Your task to perform on an android device: Do I have any events tomorrow? Image 0: 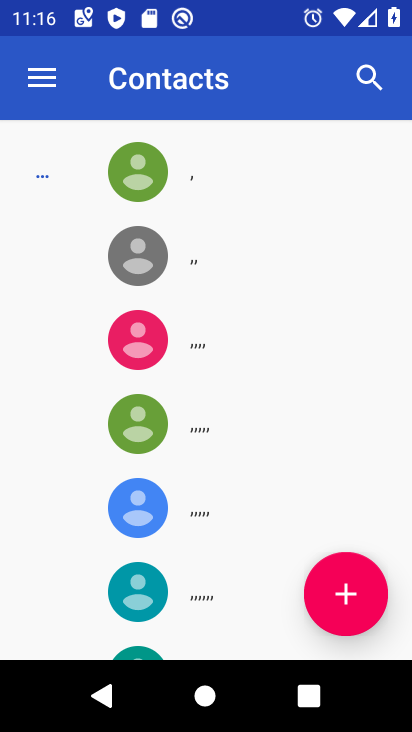
Step 0: press home button
Your task to perform on an android device: Do I have any events tomorrow? Image 1: 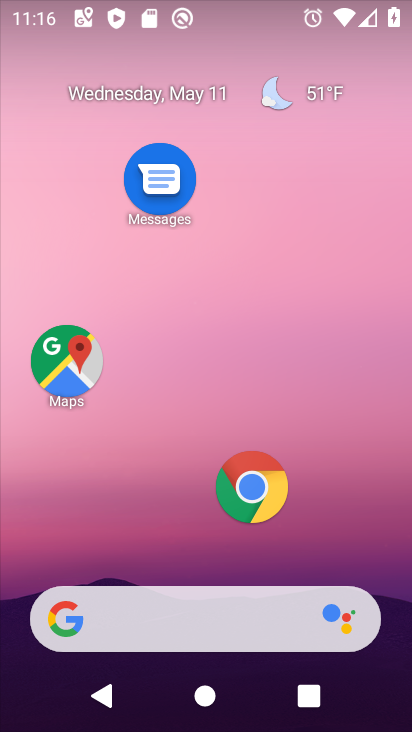
Step 1: drag from (224, 390) to (285, 169)
Your task to perform on an android device: Do I have any events tomorrow? Image 2: 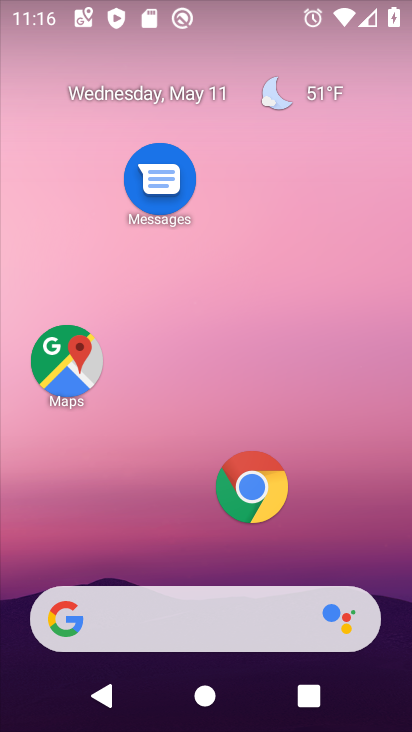
Step 2: drag from (211, 552) to (252, 116)
Your task to perform on an android device: Do I have any events tomorrow? Image 3: 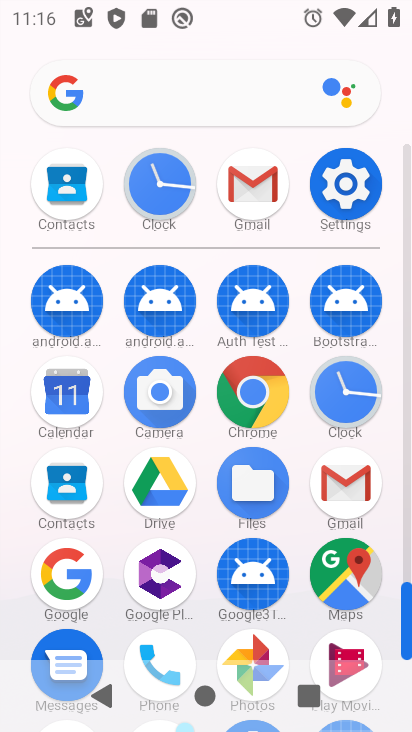
Step 3: click (48, 394)
Your task to perform on an android device: Do I have any events tomorrow? Image 4: 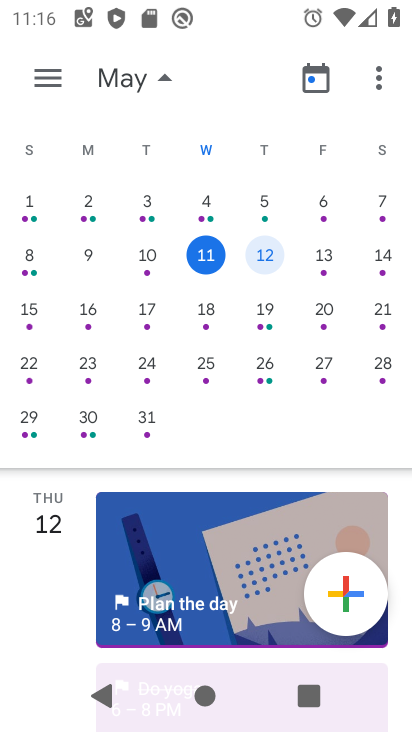
Step 4: click (264, 260)
Your task to perform on an android device: Do I have any events tomorrow? Image 5: 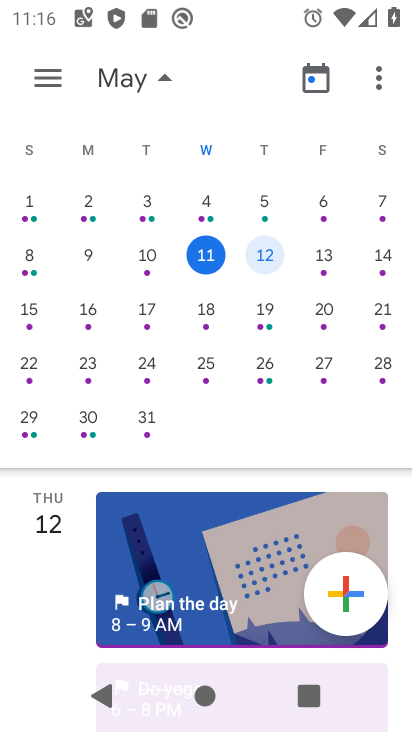
Step 5: click (269, 259)
Your task to perform on an android device: Do I have any events tomorrow? Image 6: 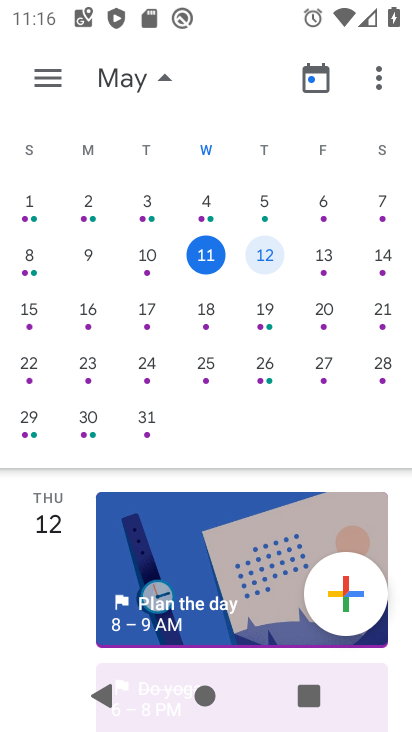
Step 6: task complete